Your task to perform on an android device: see tabs open on other devices in the chrome app Image 0: 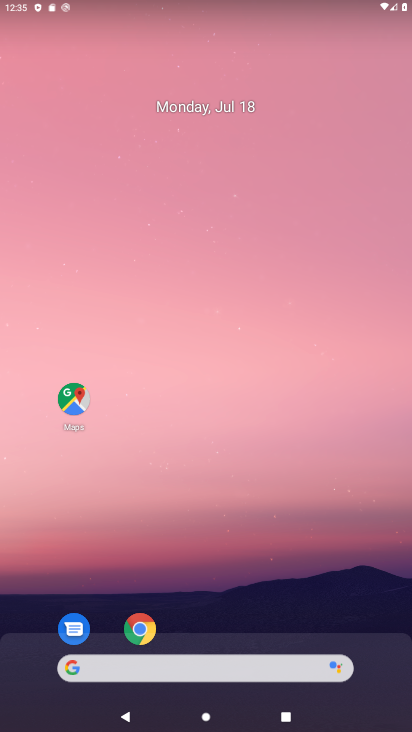
Step 0: click (139, 624)
Your task to perform on an android device: see tabs open on other devices in the chrome app Image 1: 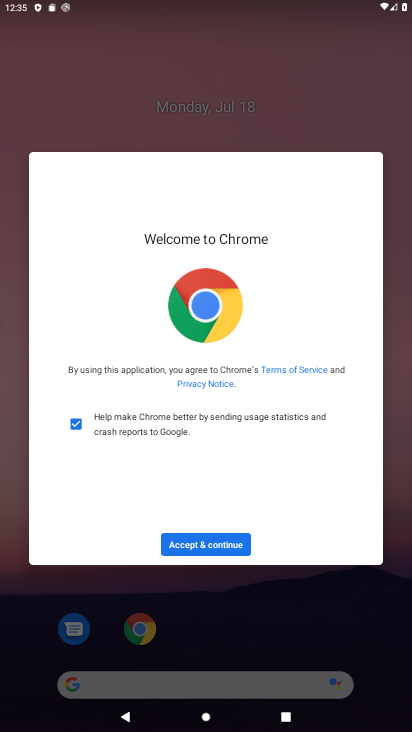
Step 1: click (183, 555)
Your task to perform on an android device: see tabs open on other devices in the chrome app Image 2: 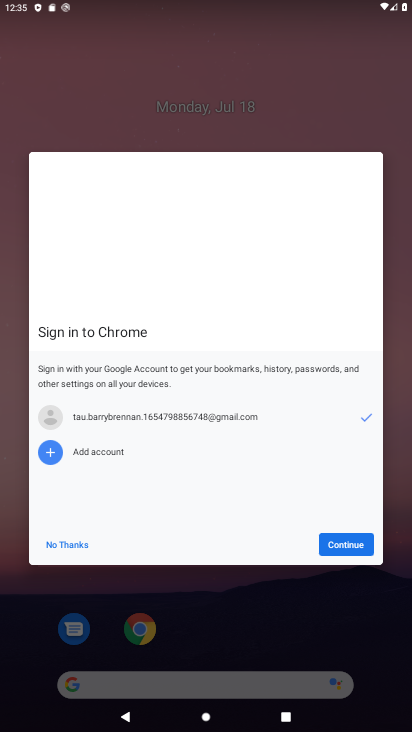
Step 2: click (341, 541)
Your task to perform on an android device: see tabs open on other devices in the chrome app Image 3: 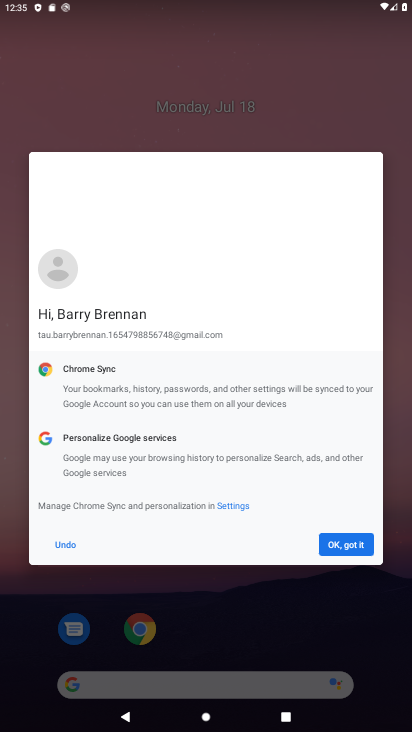
Step 3: click (341, 541)
Your task to perform on an android device: see tabs open on other devices in the chrome app Image 4: 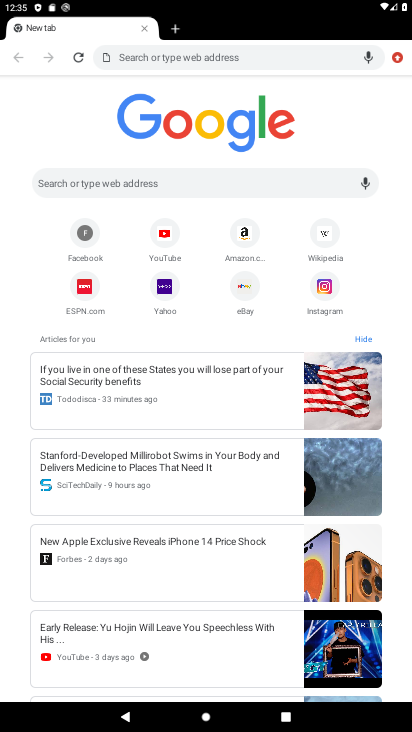
Step 4: click (397, 58)
Your task to perform on an android device: see tabs open on other devices in the chrome app Image 5: 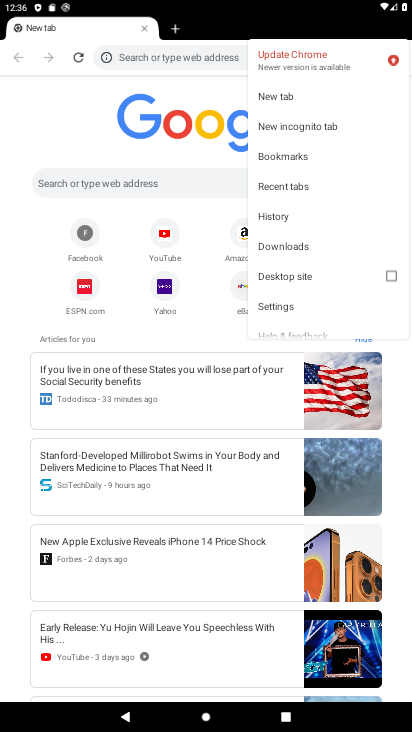
Step 5: click (272, 183)
Your task to perform on an android device: see tabs open on other devices in the chrome app Image 6: 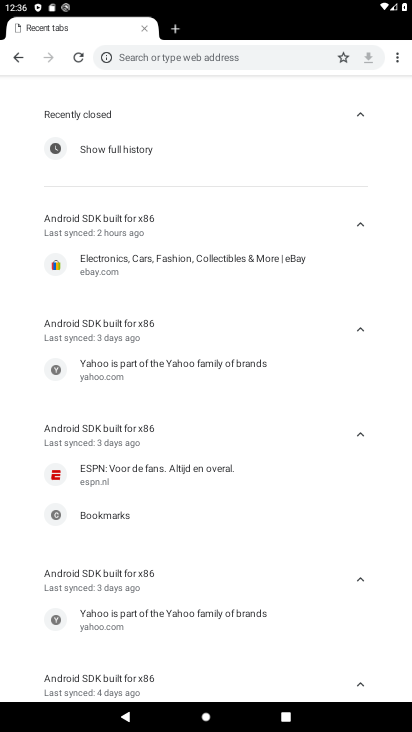
Step 6: task complete